Your task to perform on an android device: toggle improve location accuracy Image 0: 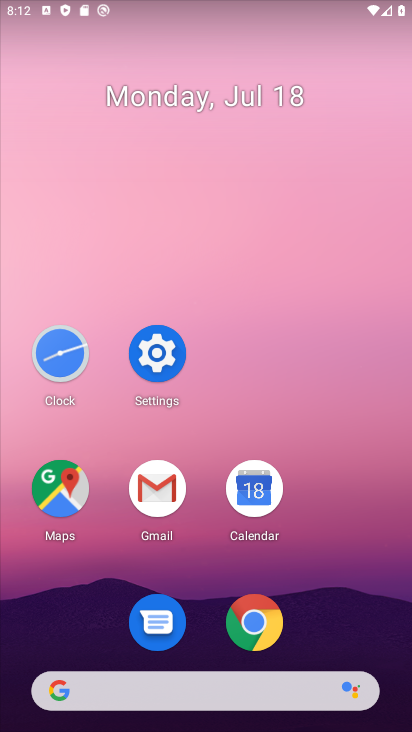
Step 0: click (163, 341)
Your task to perform on an android device: toggle improve location accuracy Image 1: 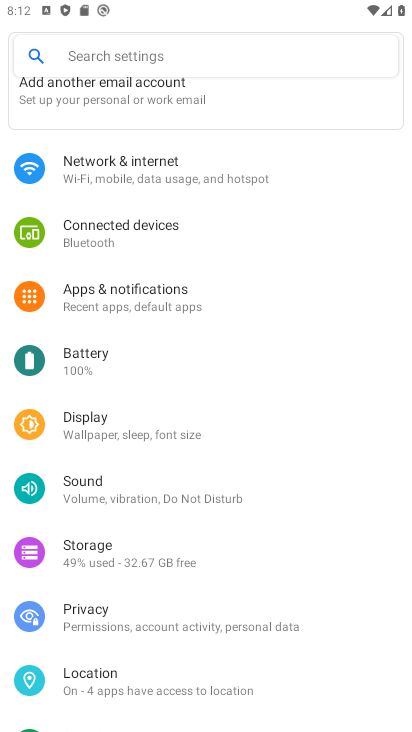
Step 1: click (72, 671)
Your task to perform on an android device: toggle improve location accuracy Image 2: 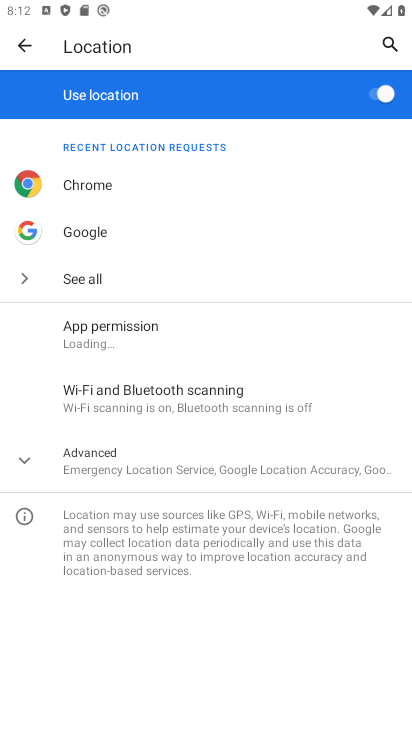
Step 2: click (28, 459)
Your task to perform on an android device: toggle improve location accuracy Image 3: 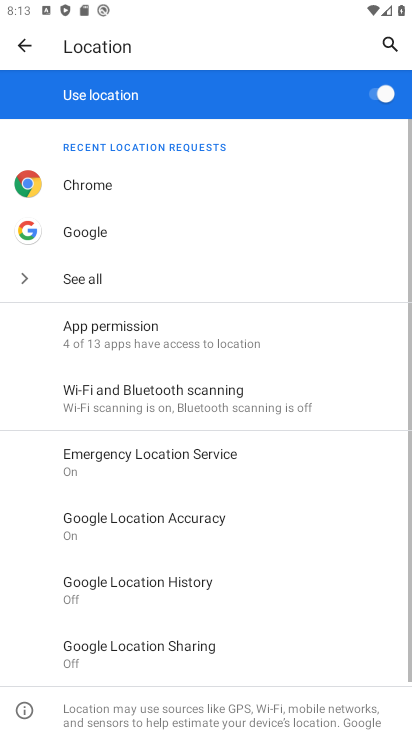
Step 3: drag from (312, 644) to (316, 242)
Your task to perform on an android device: toggle improve location accuracy Image 4: 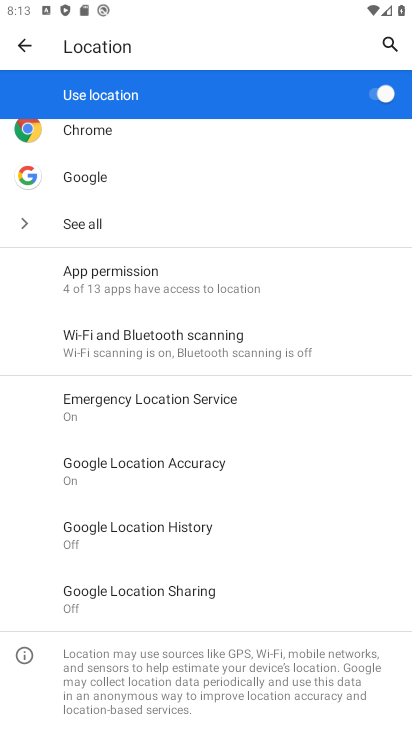
Step 4: click (134, 467)
Your task to perform on an android device: toggle improve location accuracy Image 5: 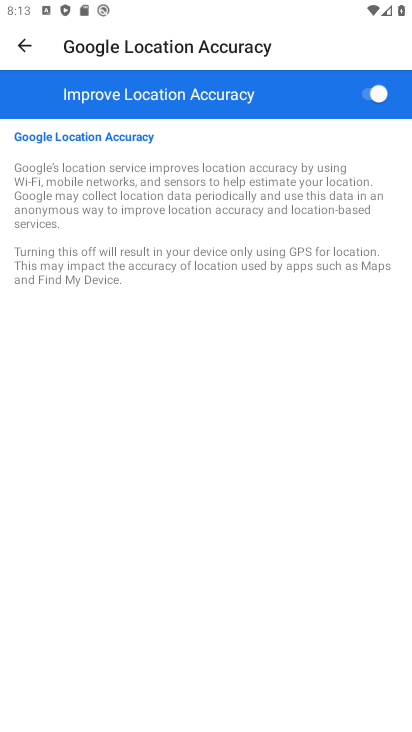
Step 5: click (370, 91)
Your task to perform on an android device: toggle improve location accuracy Image 6: 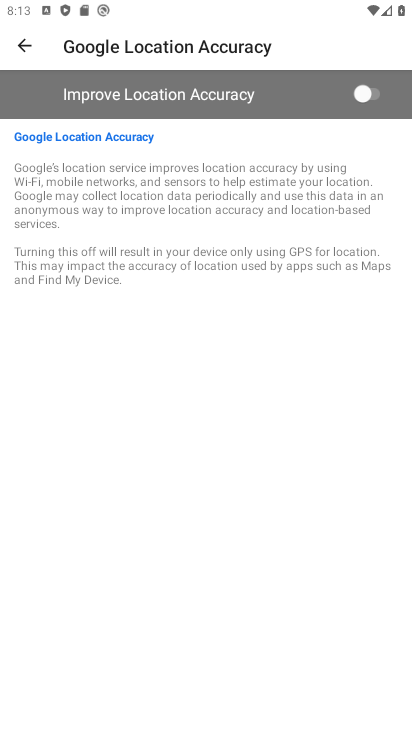
Step 6: task complete